Your task to perform on an android device: turn vacation reply on in the gmail app Image 0: 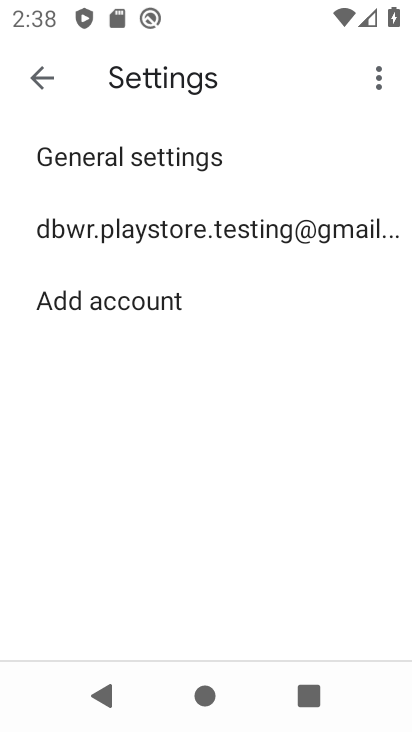
Step 0: press back button
Your task to perform on an android device: turn vacation reply on in the gmail app Image 1: 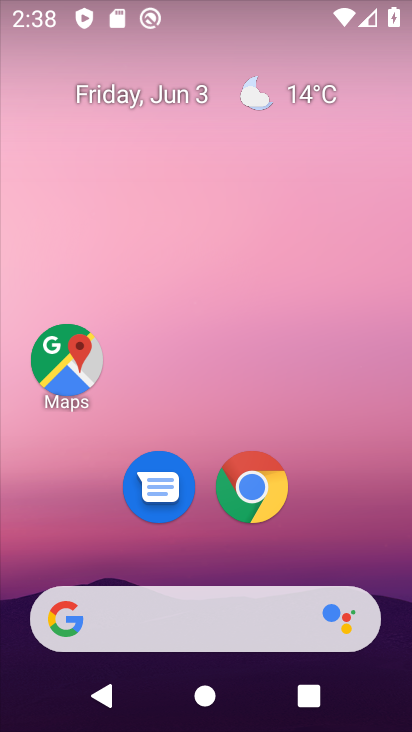
Step 1: drag from (206, 562) to (252, 30)
Your task to perform on an android device: turn vacation reply on in the gmail app Image 2: 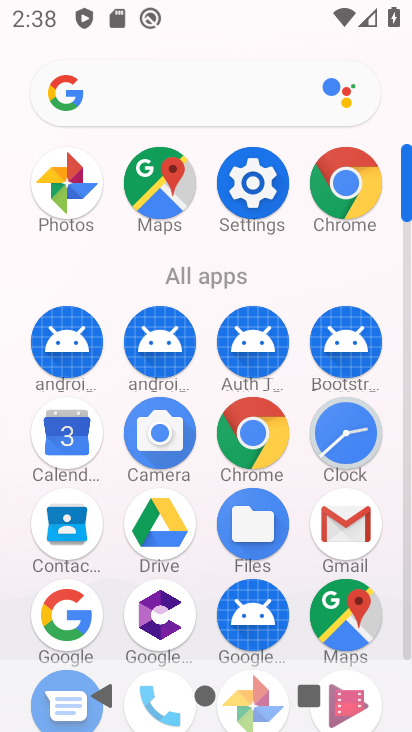
Step 2: click (337, 537)
Your task to perform on an android device: turn vacation reply on in the gmail app Image 3: 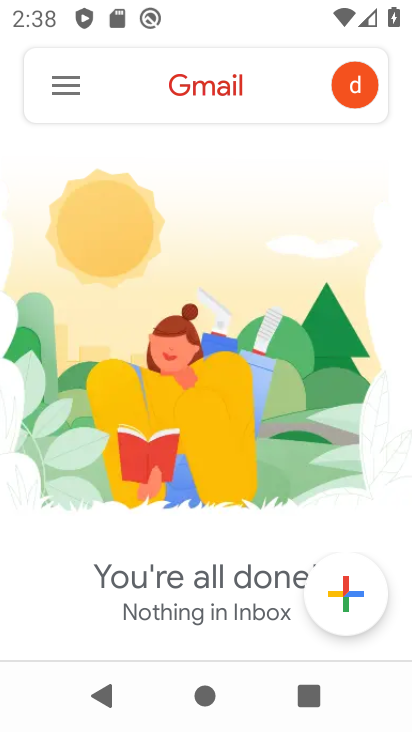
Step 3: click (57, 77)
Your task to perform on an android device: turn vacation reply on in the gmail app Image 4: 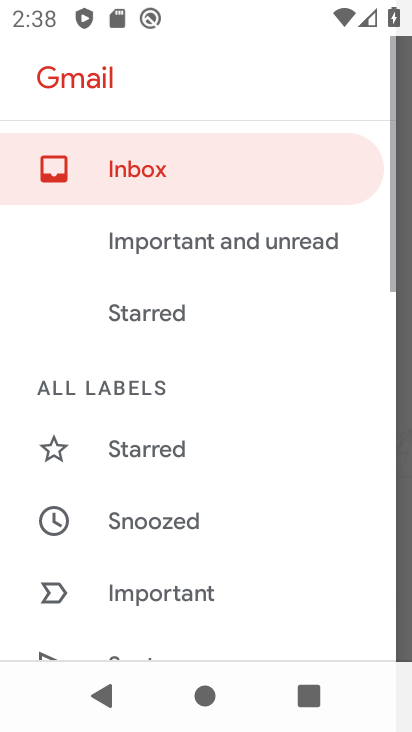
Step 4: drag from (181, 595) to (224, 38)
Your task to perform on an android device: turn vacation reply on in the gmail app Image 5: 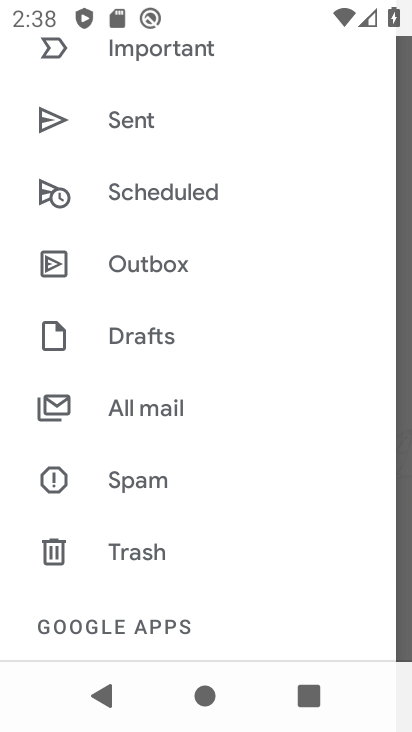
Step 5: drag from (143, 573) to (213, 21)
Your task to perform on an android device: turn vacation reply on in the gmail app Image 6: 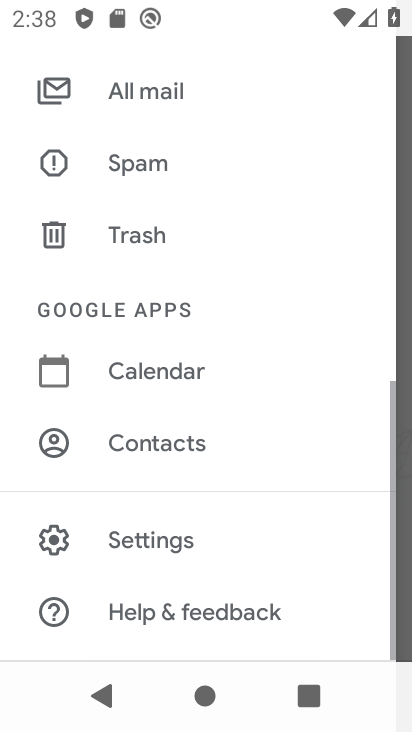
Step 6: click (112, 554)
Your task to perform on an android device: turn vacation reply on in the gmail app Image 7: 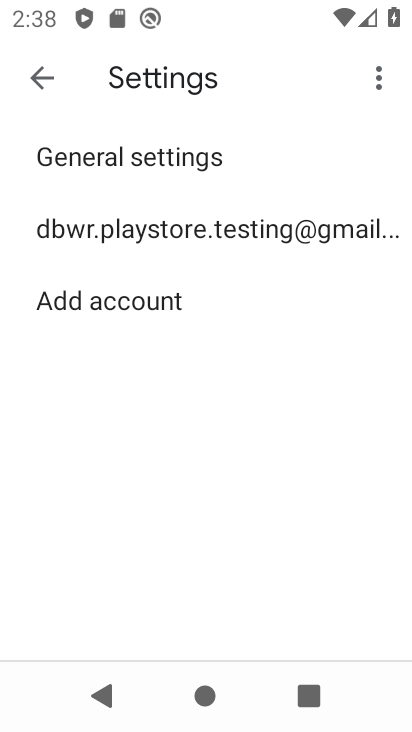
Step 7: click (137, 233)
Your task to perform on an android device: turn vacation reply on in the gmail app Image 8: 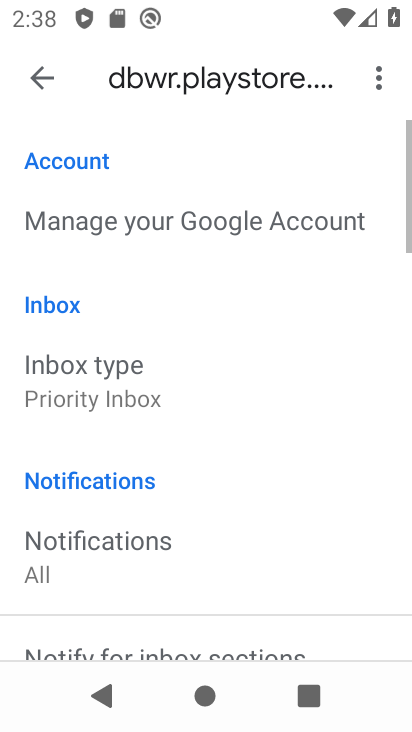
Step 8: drag from (178, 631) to (255, 117)
Your task to perform on an android device: turn vacation reply on in the gmail app Image 9: 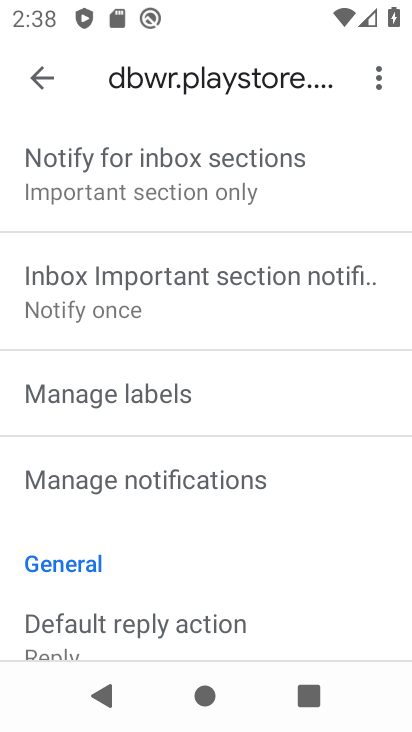
Step 9: drag from (197, 590) to (262, 67)
Your task to perform on an android device: turn vacation reply on in the gmail app Image 10: 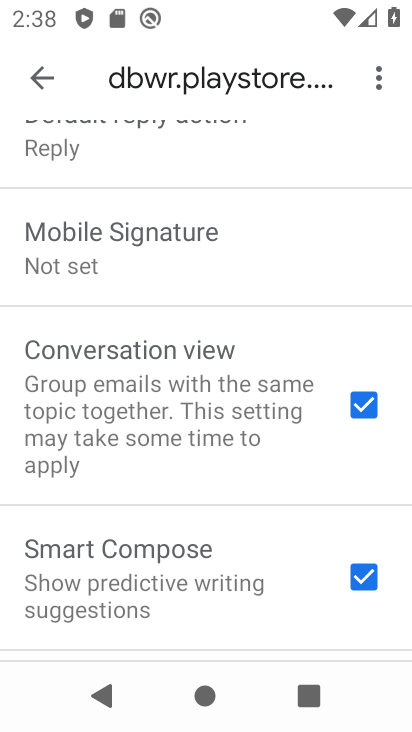
Step 10: drag from (187, 586) to (224, 106)
Your task to perform on an android device: turn vacation reply on in the gmail app Image 11: 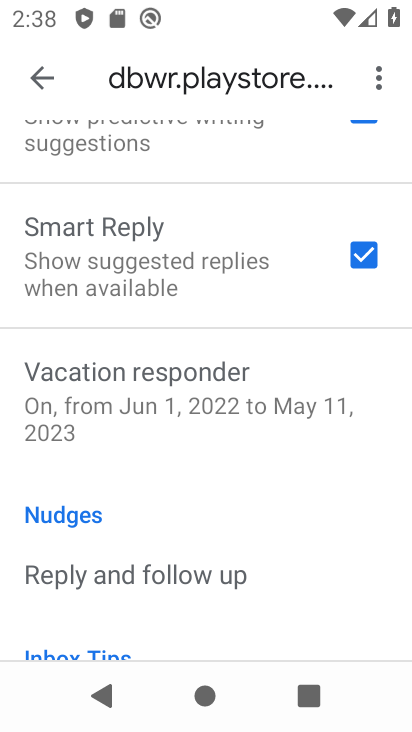
Step 11: click (154, 392)
Your task to perform on an android device: turn vacation reply on in the gmail app Image 12: 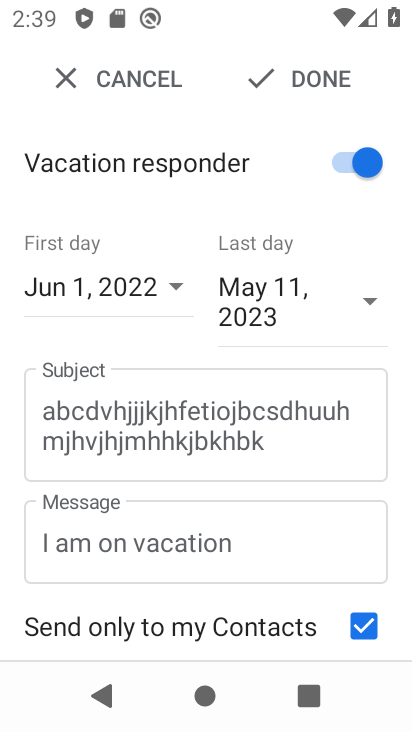
Step 12: task complete